Your task to perform on an android device: Open Android settings Image 0: 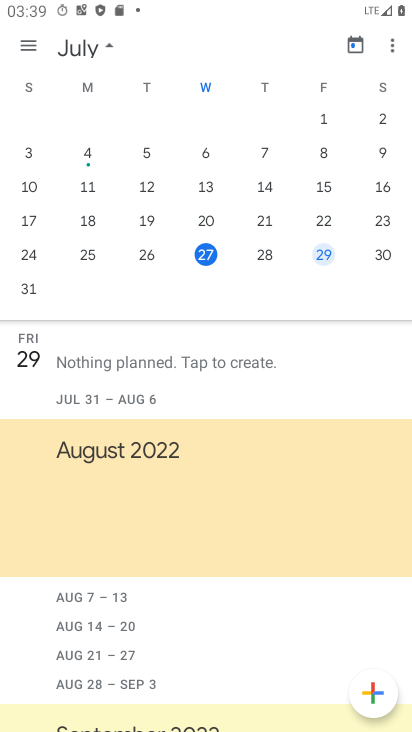
Step 0: press back button
Your task to perform on an android device: Open Android settings Image 1: 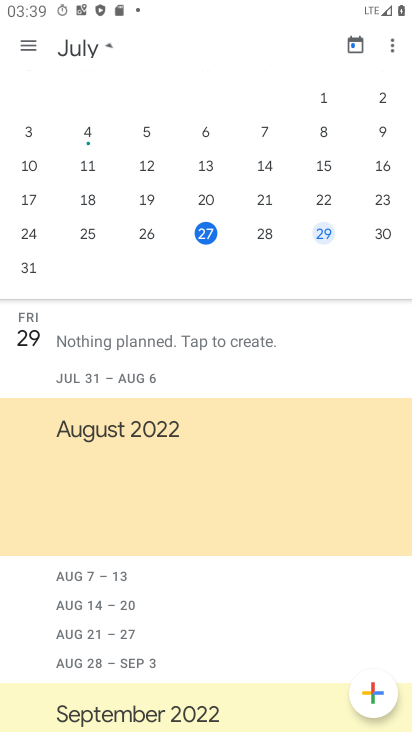
Step 1: press back button
Your task to perform on an android device: Open Android settings Image 2: 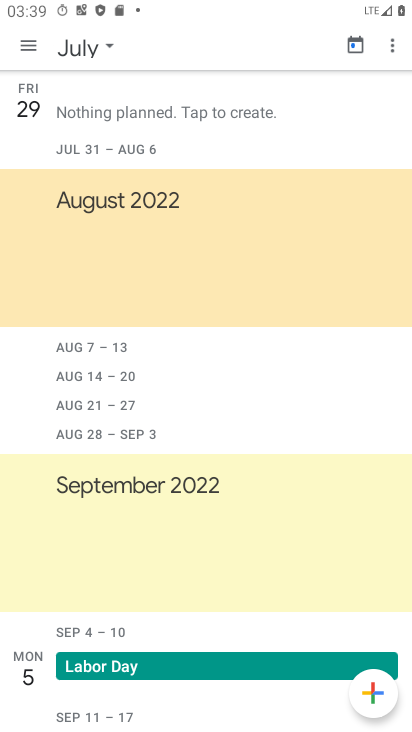
Step 2: press back button
Your task to perform on an android device: Open Android settings Image 3: 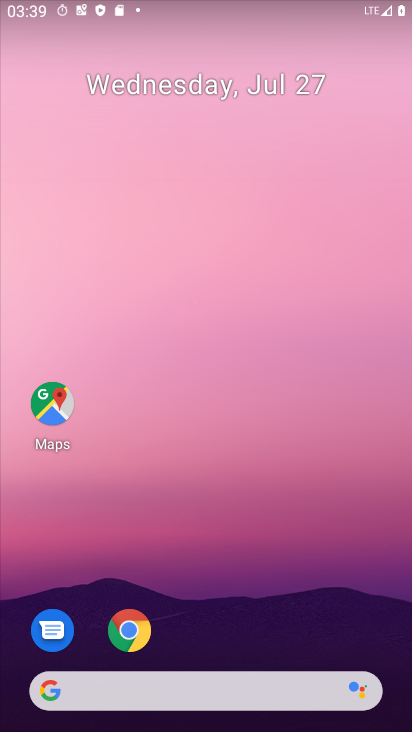
Step 3: drag from (250, 630) to (197, 102)
Your task to perform on an android device: Open Android settings Image 4: 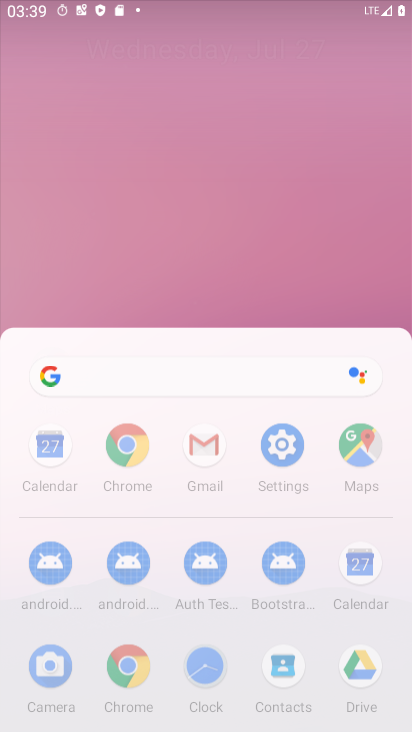
Step 4: drag from (307, 424) to (246, 51)
Your task to perform on an android device: Open Android settings Image 5: 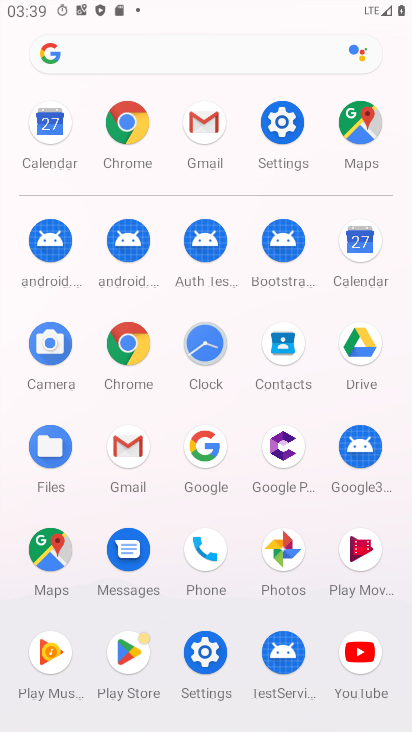
Step 5: drag from (231, 441) to (175, 35)
Your task to perform on an android device: Open Android settings Image 6: 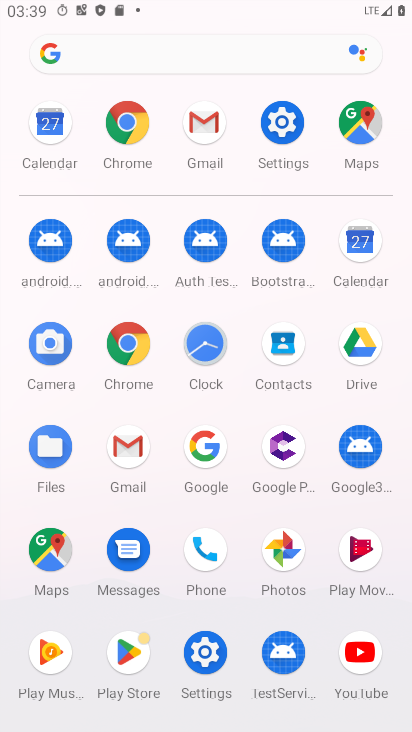
Step 6: click (273, 117)
Your task to perform on an android device: Open Android settings Image 7: 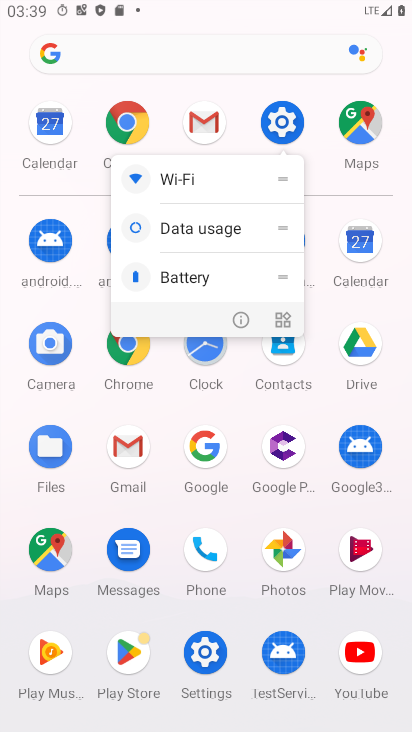
Step 7: click (199, 659)
Your task to perform on an android device: Open Android settings Image 8: 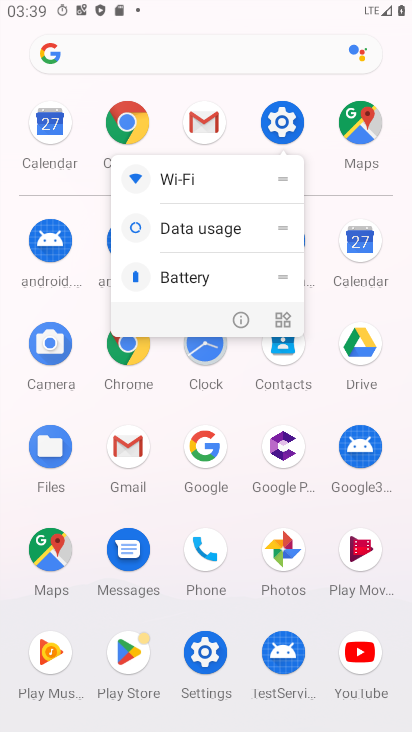
Step 8: click (202, 656)
Your task to perform on an android device: Open Android settings Image 9: 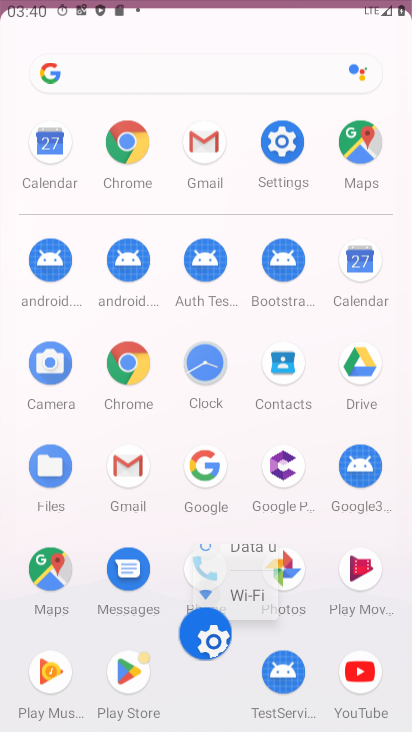
Step 9: click (208, 637)
Your task to perform on an android device: Open Android settings Image 10: 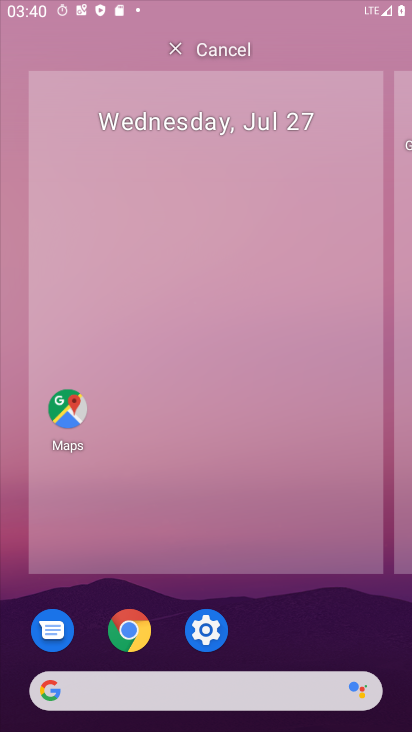
Step 10: click (202, 641)
Your task to perform on an android device: Open Android settings Image 11: 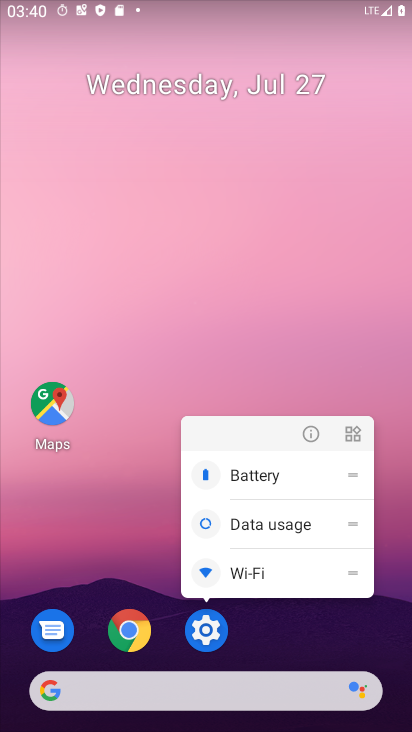
Step 11: click (215, 636)
Your task to perform on an android device: Open Android settings Image 12: 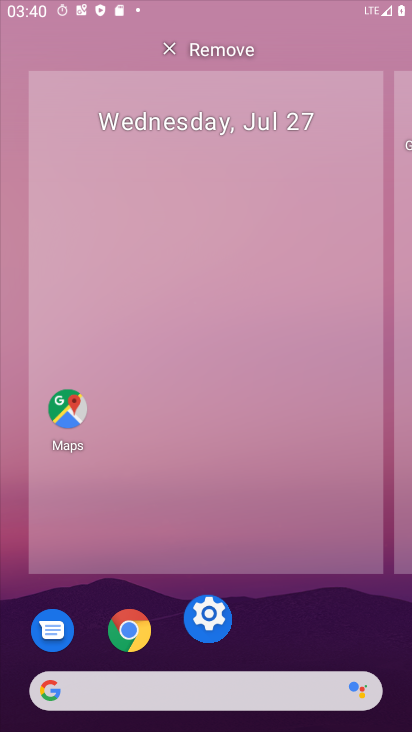
Step 12: click (213, 644)
Your task to perform on an android device: Open Android settings Image 13: 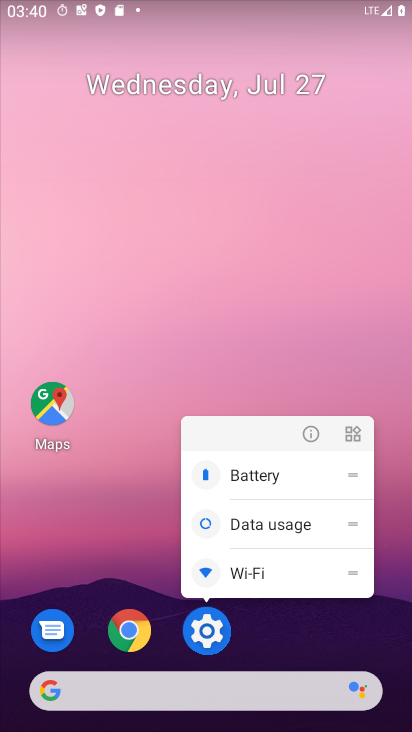
Step 13: click (205, 612)
Your task to perform on an android device: Open Android settings Image 14: 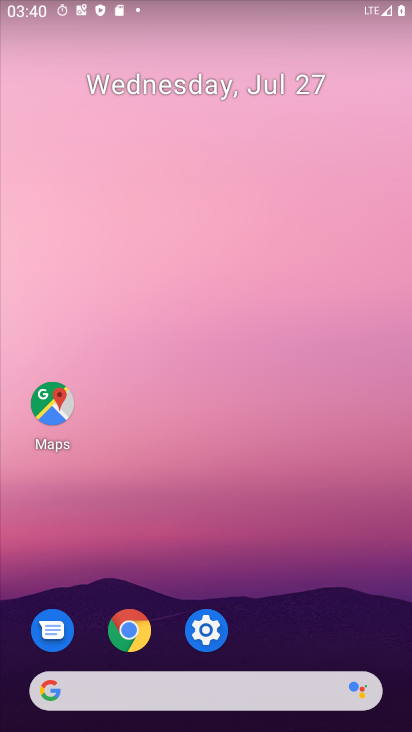
Step 14: click (208, 621)
Your task to perform on an android device: Open Android settings Image 15: 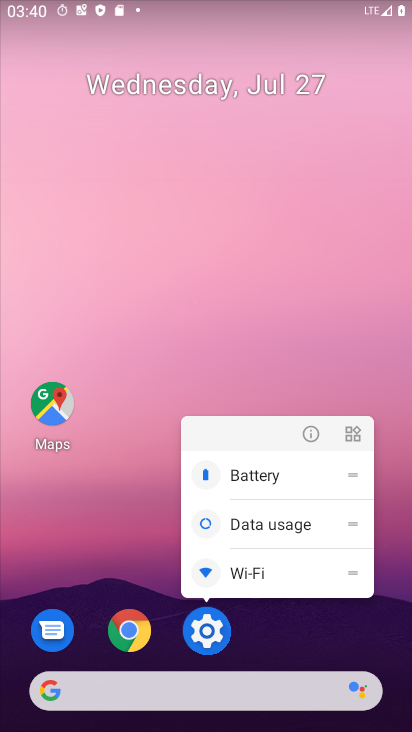
Step 15: drag from (217, 650) to (179, 79)
Your task to perform on an android device: Open Android settings Image 16: 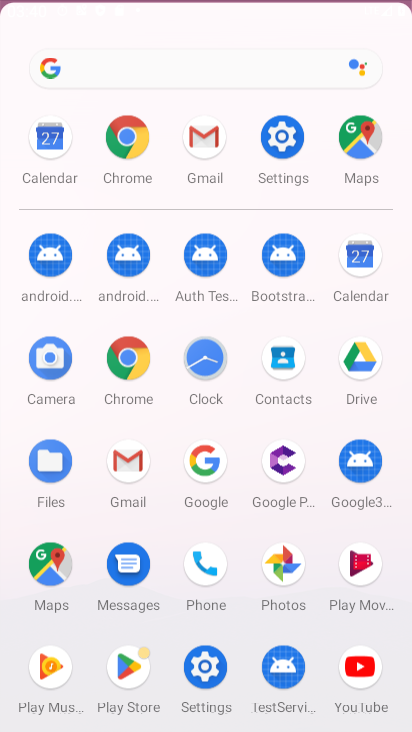
Step 16: drag from (256, 543) to (179, 126)
Your task to perform on an android device: Open Android settings Image 17: 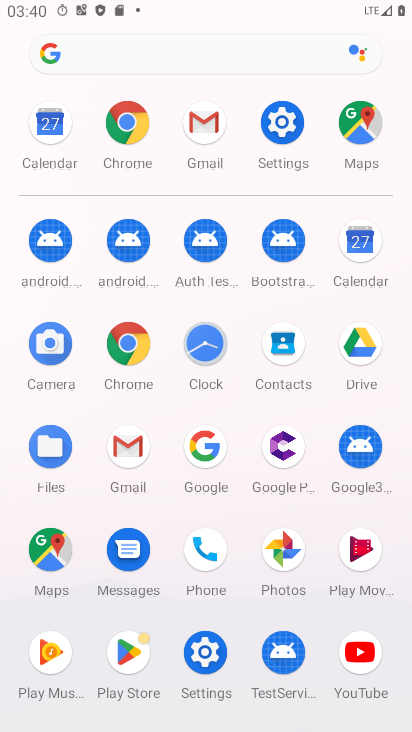
Step 17: click (277, 117)
Your task to perform on an android device: Open Android settings Image 18: 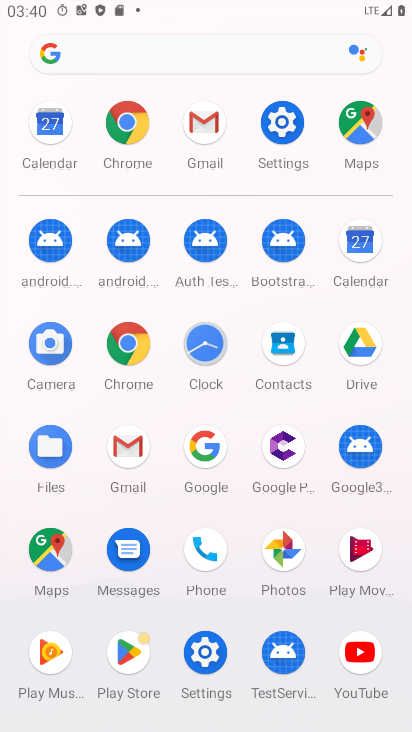
Step 18: click (277, 117)
Your task to perform on an android device: Open Android settings Image 19: 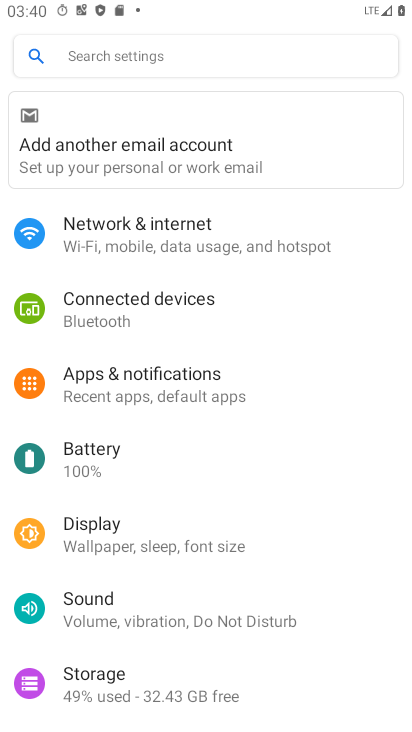
Step 19: drag from (134, 396) to (81, 107)
Your task to perform on an android device: Open Android settings Image 20: 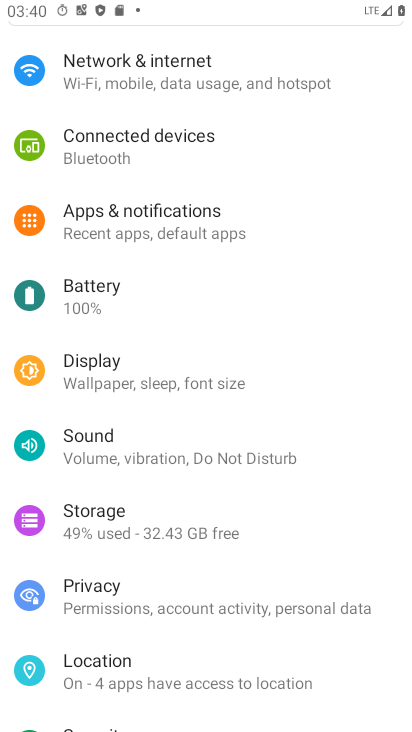
Step 20: drag from (182, 509) to (168, 201)
Your task to perform on an android device: Open Android settings Image 21: 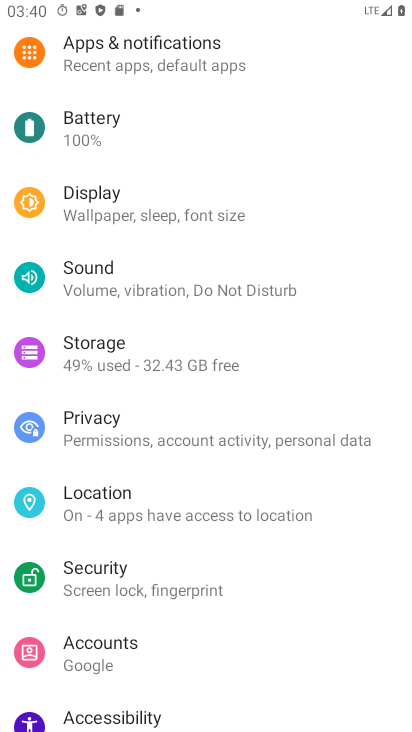
Step 21: drag from (140, 444) to (108, 131)
Your task to perform on an android device: Open Android settings Image 22: 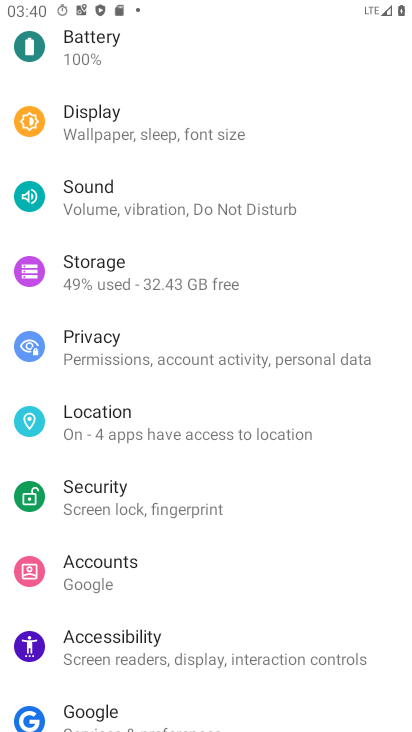
Step 22: drag from (121, 655) to (121, 177)
Your task to perform on an android device: Open Android settings Image 23: 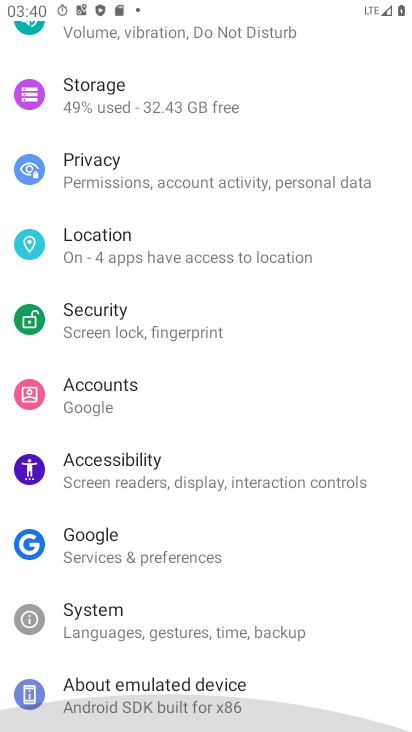
Step 23: drag from (172, 458) to (172, 155)
Your task to perform on an android device: Open Android settings Image 24: 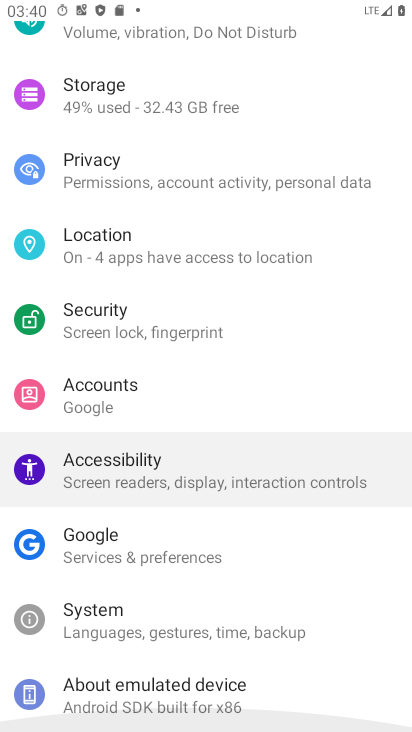
Step 24: drag from (134, 372) to (134, 201)
Your task to perform on an android device: Open Android settings Image 25: 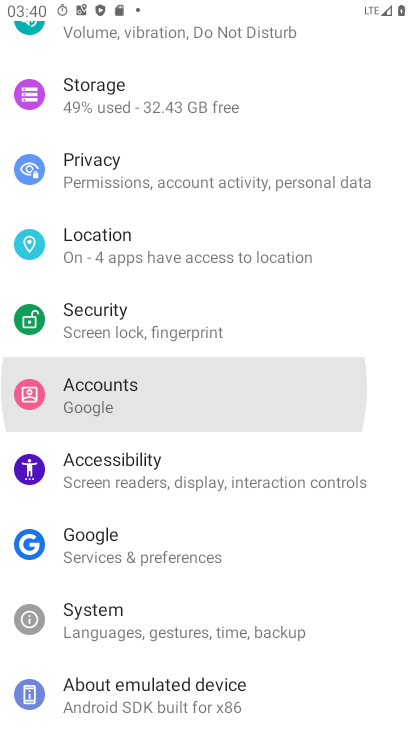
Step 25: drag from (159, 385) to (140, 259)
Your task to perform on an android device: Open Android settings Image 26: 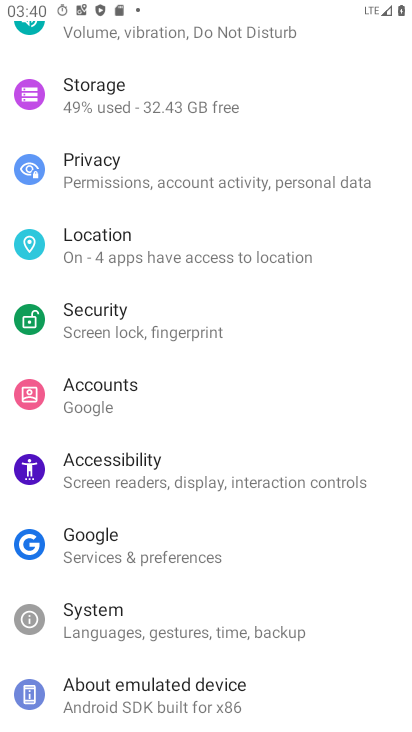
Step 26: click (121, 692)
Your task to perform on an android device: Open Android settings Image 27: 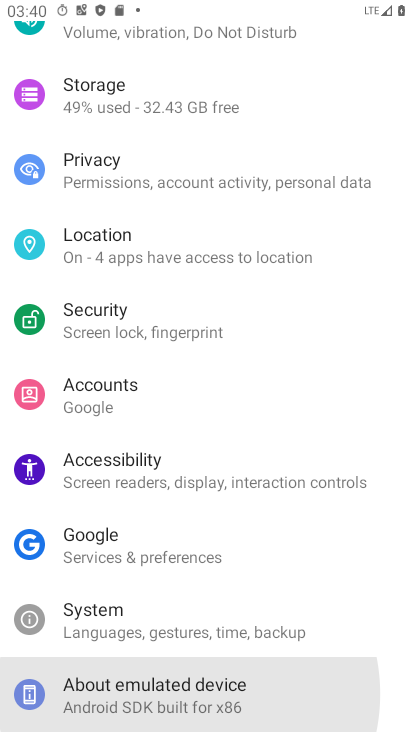
Step 27: click (120, 690)
Your task to perform on an android device: Open Android settings Image 28: 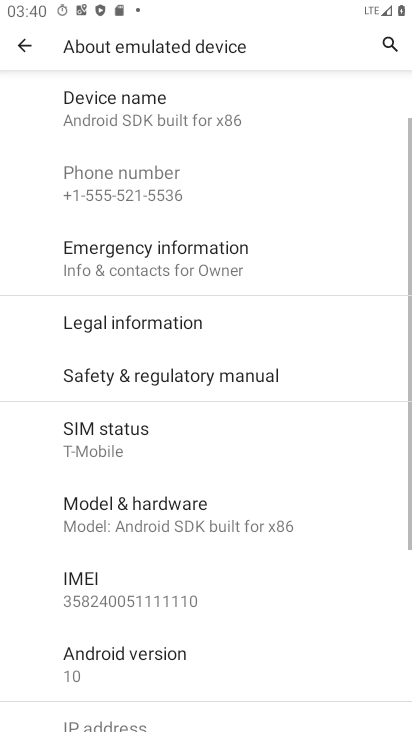
Step 28: task complete